Your task to perform on an android device: turn on translation in the chrome app Image 0: 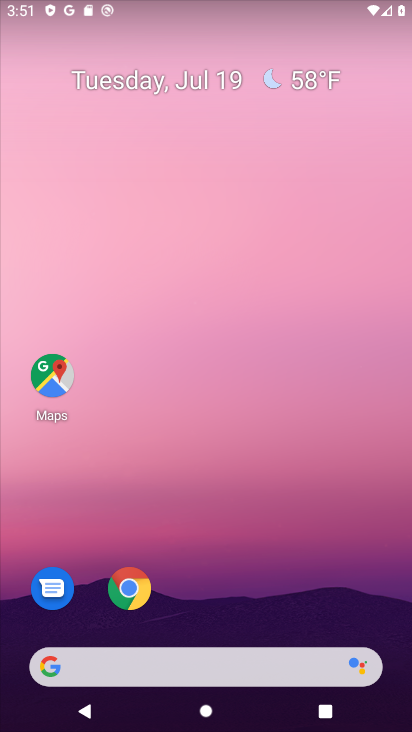
Step 0: drag from (222, 625) to (283, 226)
Your task to perform on an android device: turn on translation in the chrome app Image 1: 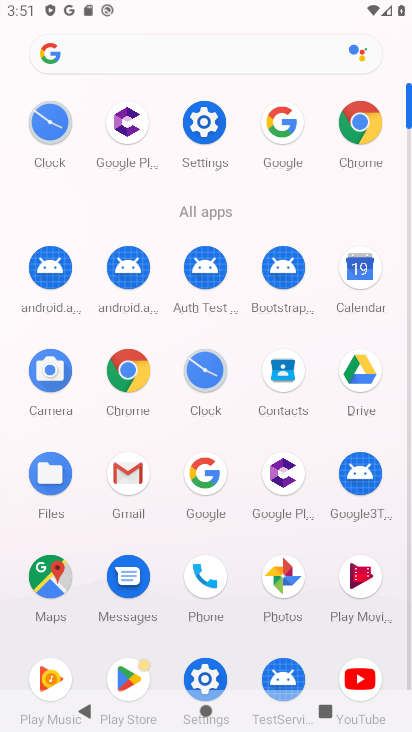
Step 1: click (122, 359)
Your task to perform on an android device: turn on translation in the chrome app Image 2: 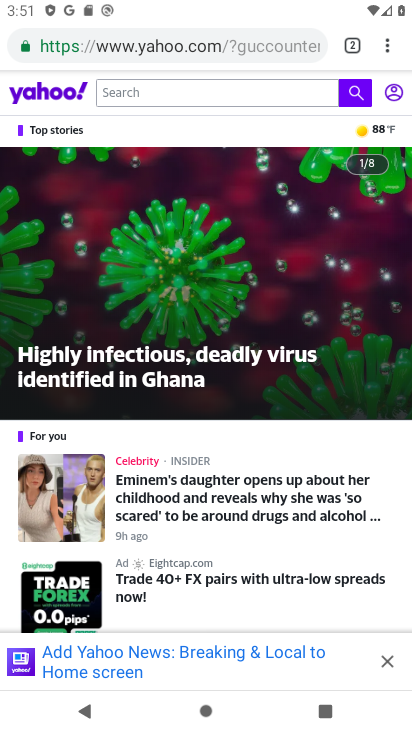
Step 2: drag from (381, 43) to (310, 545)
Your task to perform on an android device: turn on translation in the chrome app Image 3: 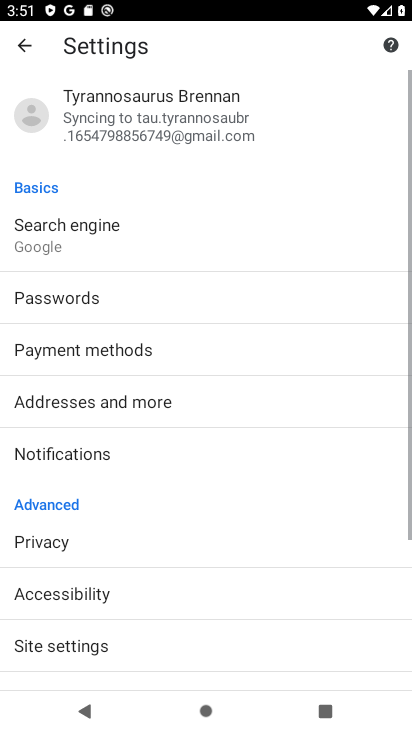
Step 3: drag from (94, 648) to (205, 281)
Your task to perform on an android device: turn on translation in the chrome app Image 4: 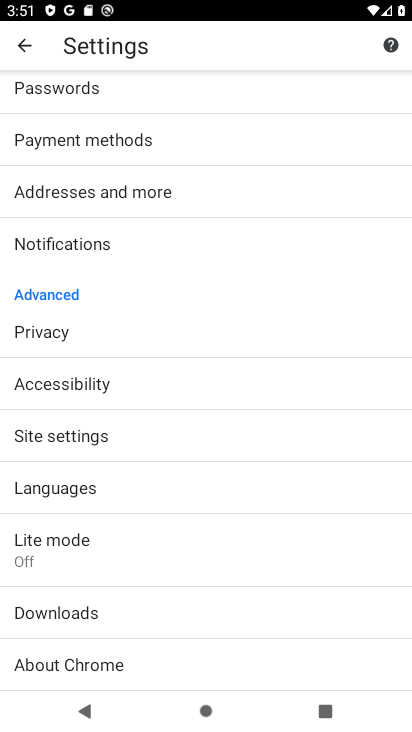
Step 4: click (134, 485)
Your task to perform on an android device: turn on translation in the chrome app Image 5: 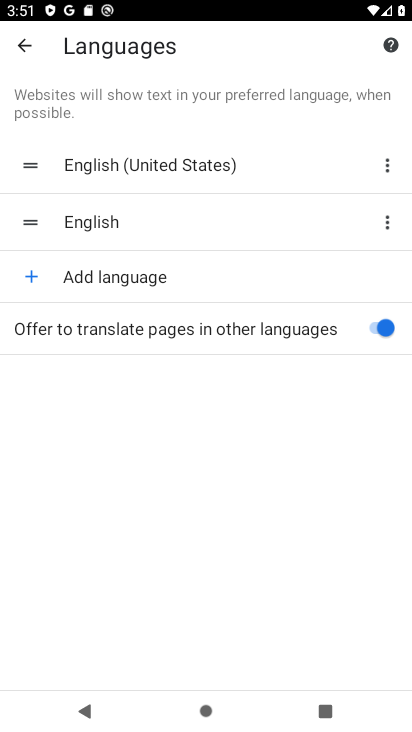
Step 5: task complete